Your task to perform on an android device: toggle wifi Image 0: 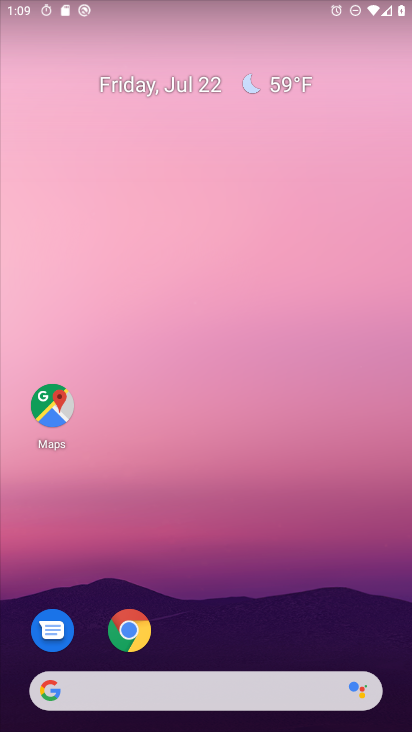
Step 0: press home button
Your task to perform on an android device: toggle wifi Image 1: 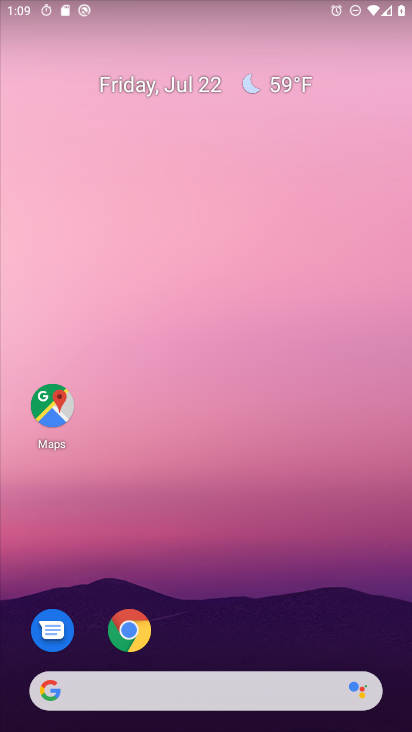
Step 1: drag from (194, 0) to (245, 661)
Your task to perform on an android device: toggle wifi Image 2: 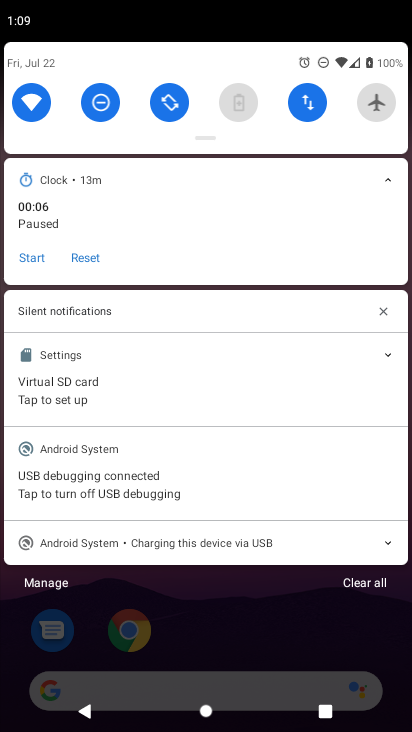
Step 2: click (39, 101)
Your task to perform on an android device: toggle wifi Image 3: 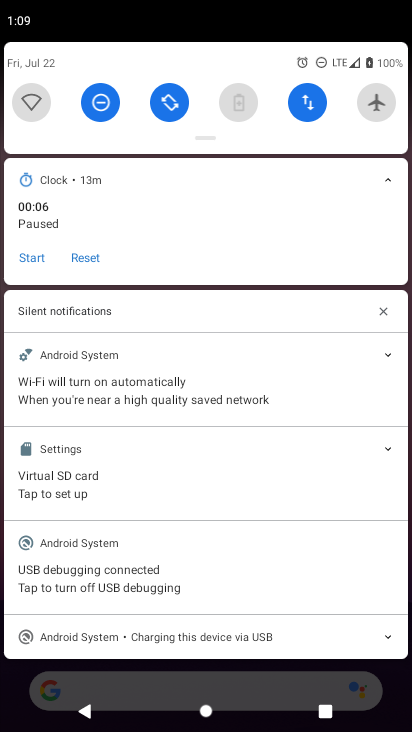
Step 3: task complete